Your task to perform on an android device: Open network settings Image 0: 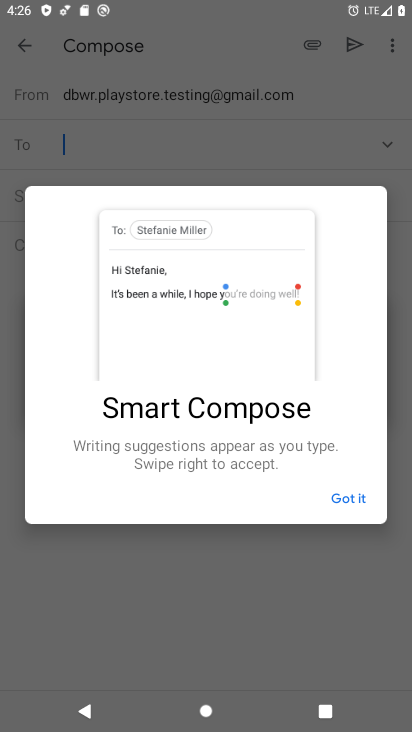
Step 0: press home button
Your task to perform on an android device: Open network settings Image 1: 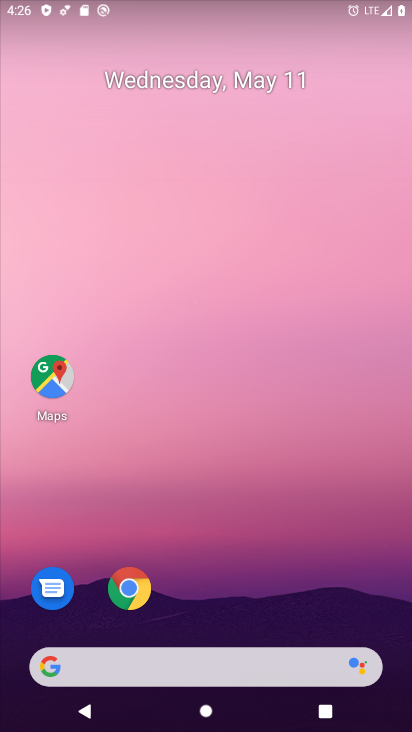
Step 1: drag from (210, 605) to (200, 113)
Your task to perform on an android device: Open network settings Image 2: 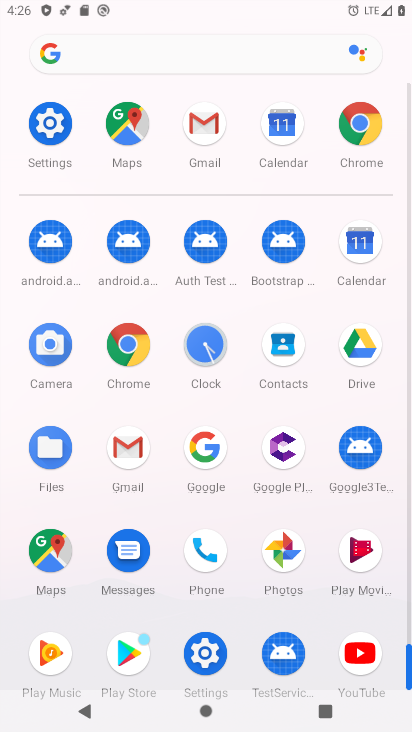
Step 2: click (57, 127)
Your task to perform on an android device: Open network settings Image 3: 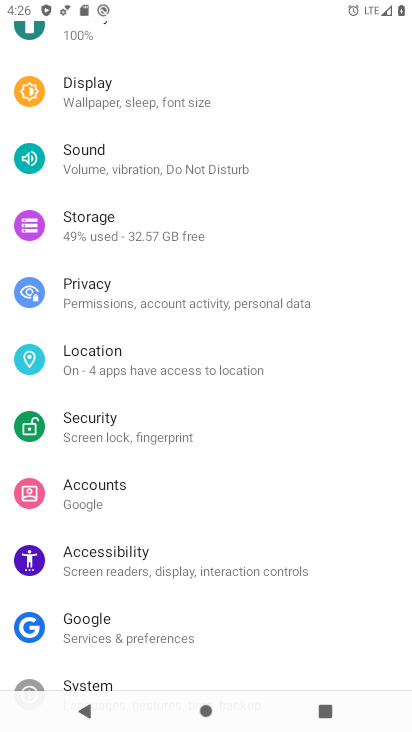
Step 3: drag from (193, 180) to (232, 630)
Your task to perform on an android device: Open network settings Image 4: 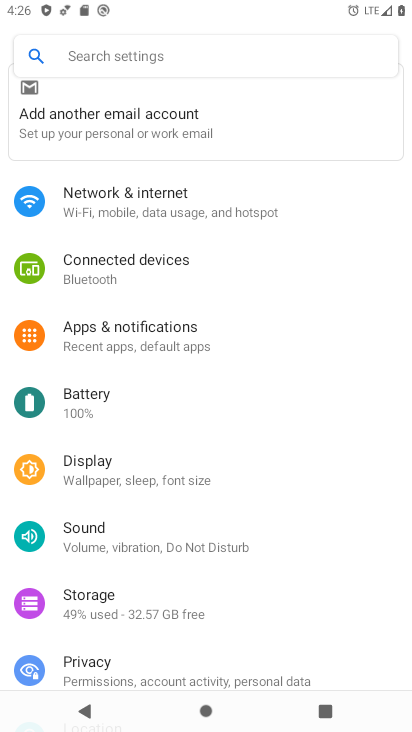
Step 4: drag from (209, 204) to (266, 679)
Your task to perform on an android device: Open network settings Image 5: 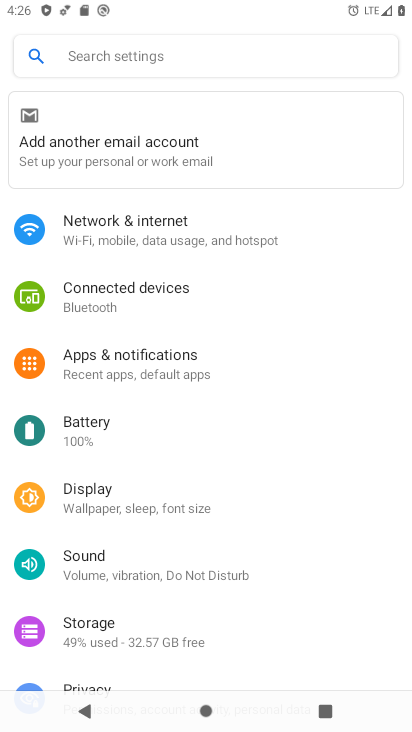
Step 5: click (143, 242)
Your task to perform on an android device: Open network settings Image 6: 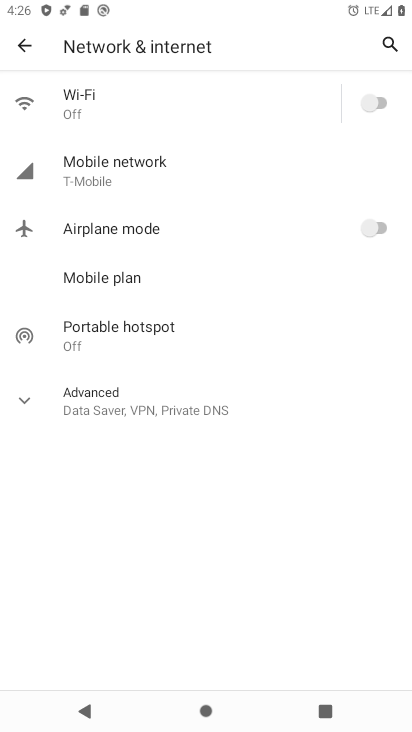
Step 6: click (94, 188)
Your task to perform on an android device: Open network settings Image 7: 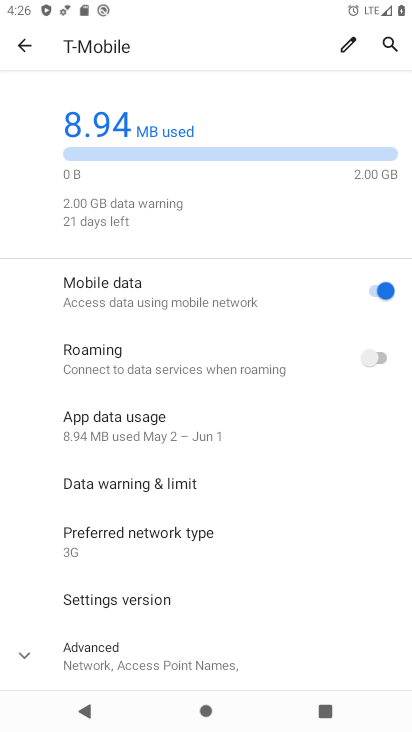
Step 7: task complete